Your task to perform on an android device: check android version Image 0: 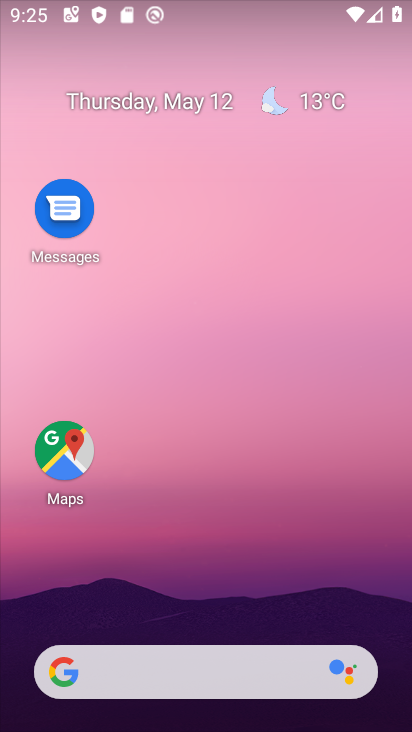
Step 0: drag from (196, 641) to (258, 17)
Your task to perform on an android device: check android version Image 1: 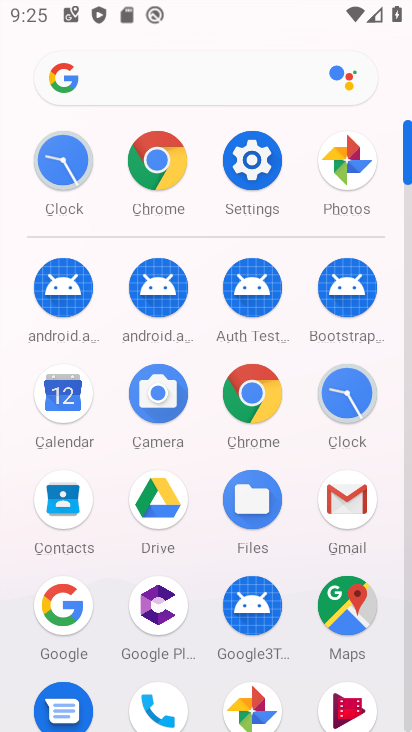
Step 1: click (268, 169)
Your task to perform on an android device: check android version Image 2: 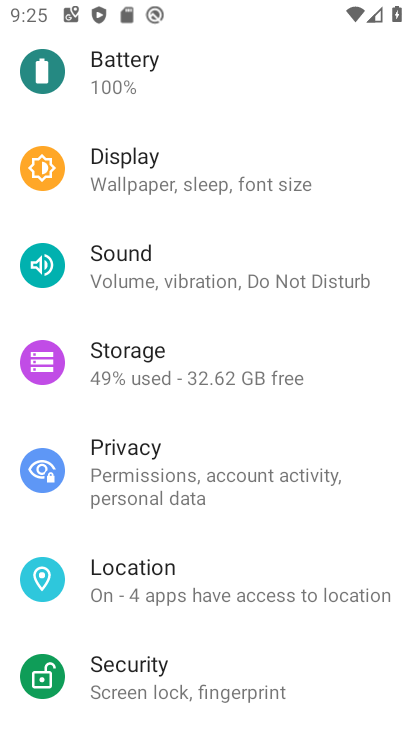
Step 2: drag from (242, 523) to (388, 330)
Your task to perform on an android device: check android version Image 3: 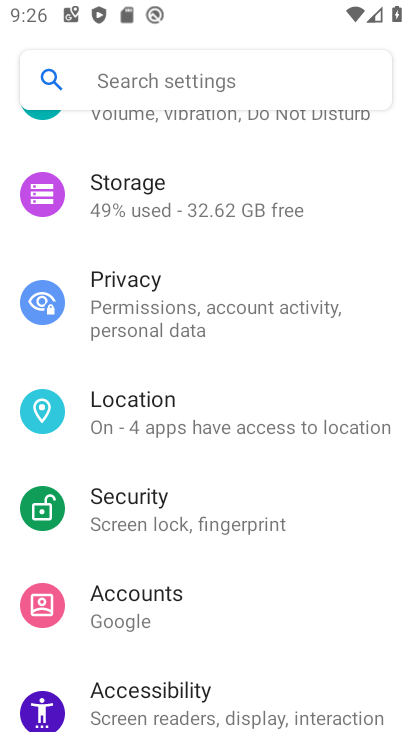
Step 3: drag from (285, 678) to (287, 0)
Your task to perform on an android device: check android version Image 4: 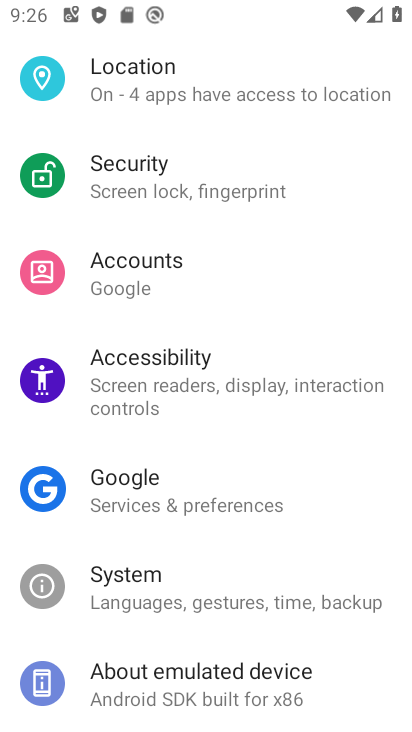
Step 4: click (216, 653)
Your task to perform on an android device: check android version Image 5: 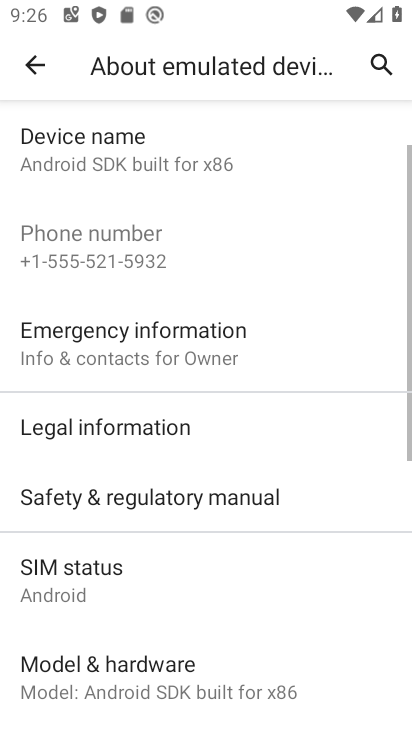
Step 5: drag from (116, 666) to (99, 108)
Your task to perform on an android device: check android version Image 6: 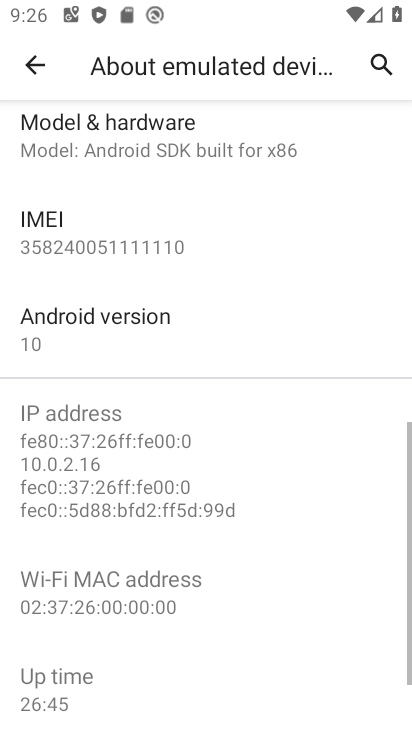
Step 6: click (101, 346)
Your task to perform on an android device: check android version Image 7: 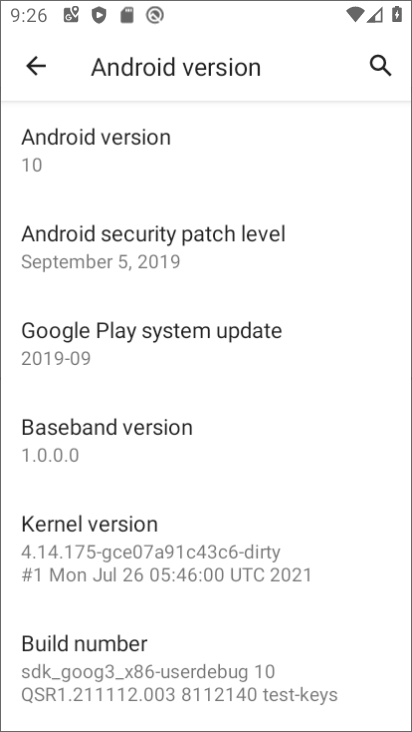
Step 7: task complete